Your task to perform on an android device: turn on the 24-hour format for clock Image 0: 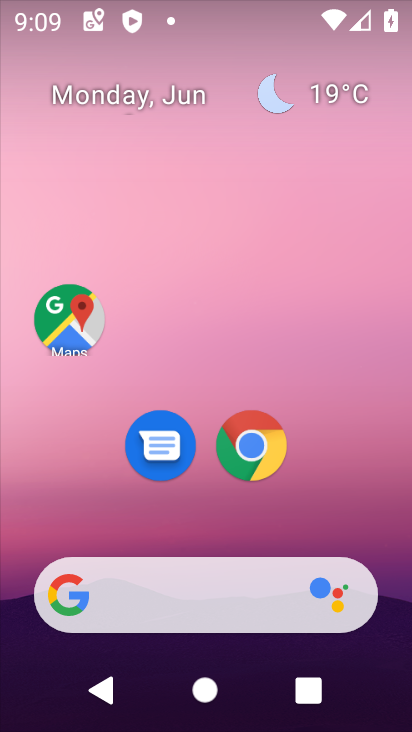
Step 0: press home button
Your task to perform on an android device: turn on the 24-hour format for clock Image 1: 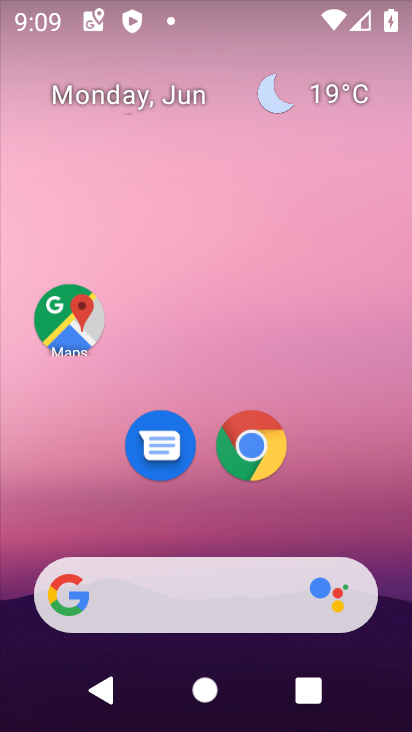
Step 1: drag from (211, 526) to (217, 74)
Your task to perform on an android device: turn on the 24-hour format for clock Image 2: 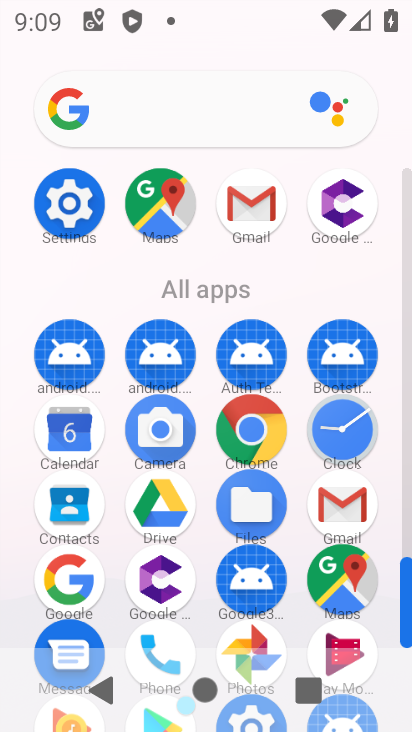
Step 2: click (339, 420)
Your task to perform on an android device: turn on the 24-hour format for clock Image 3: 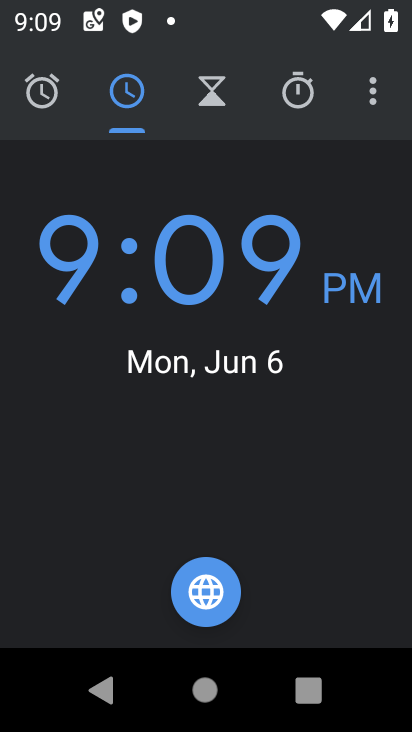
Step 3: click (375, 93)
Your task to perform on an android device: turn on the 24-hour format for clock Image 4: 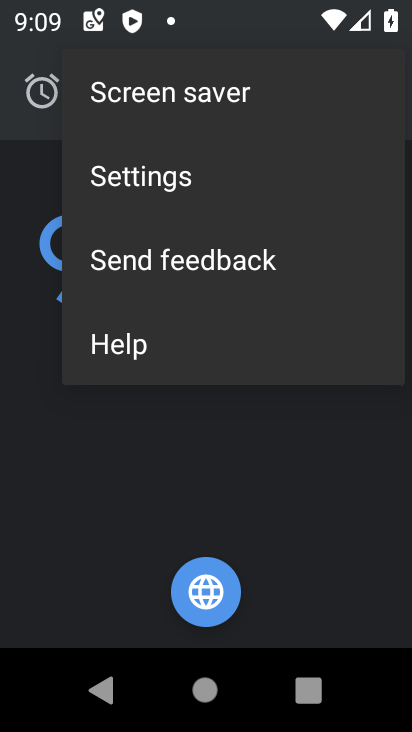
Step 4: click (205, 181)
Your task to perform on an android device: turn on the 24-hour format for clock Image 5: 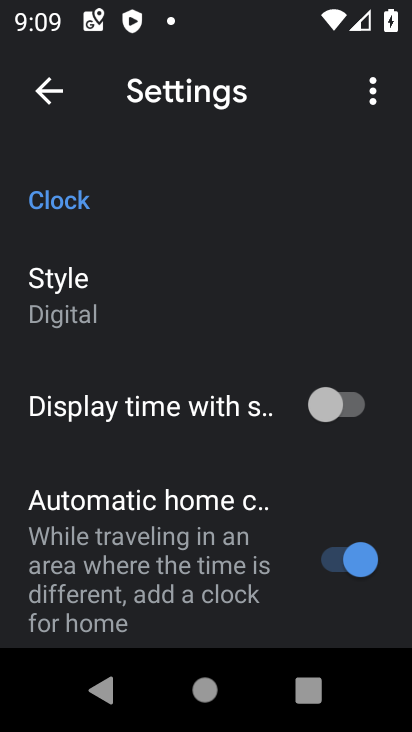
Step 5: drag from (225, 614) to (241, 87)
Your task to perform on an android device: turn on the 24-hour format for clock Image 6: 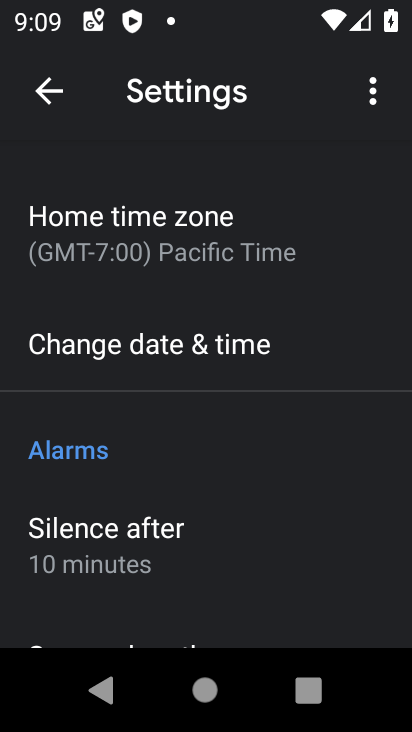
Step 6: click (290, 348)
Your task to perform on an android device: turn on the 24-hour format for clock Image 7: 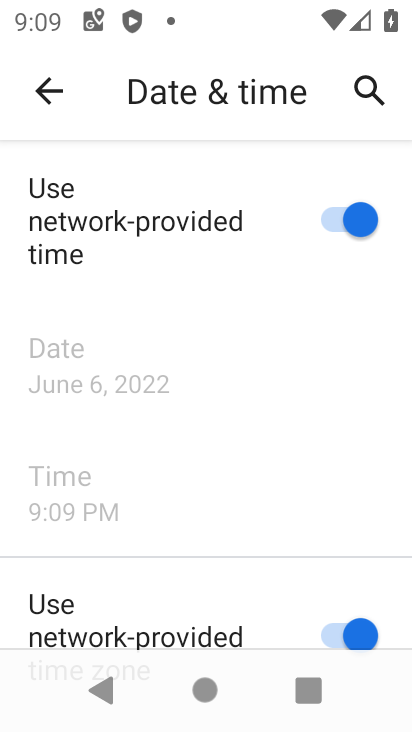
Step 7: drag from (252, 573) to (270, 140)
Your task to perform on an android device: turn on the 24-hour format for clock Image 8: 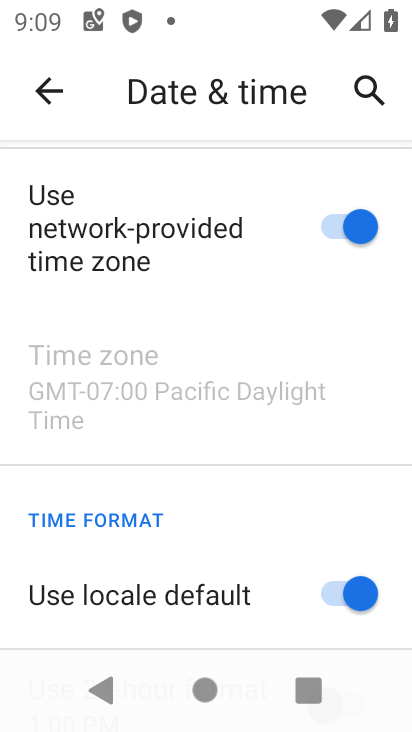
Step 8: drag from (221, 558) to (217, 140)
Your task to perform on an android device: turn on the 24-hour format for clock Image 9: 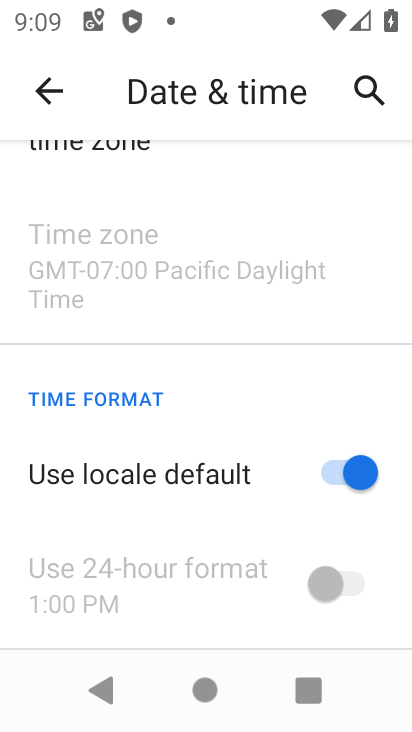
Step 9: click (332, 472)
Your task to perform on an android device: turn on the 24-hour format for clock Image 10: 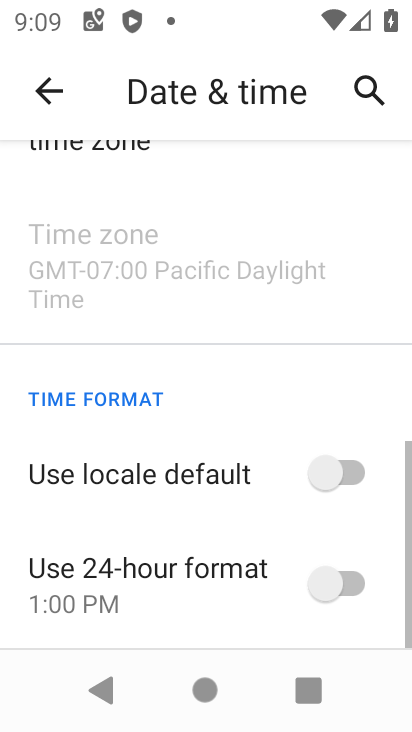
Step 10: click (350, 582)
Your task to perform on an android device: turn on the 24-hour format for clock Image 11: 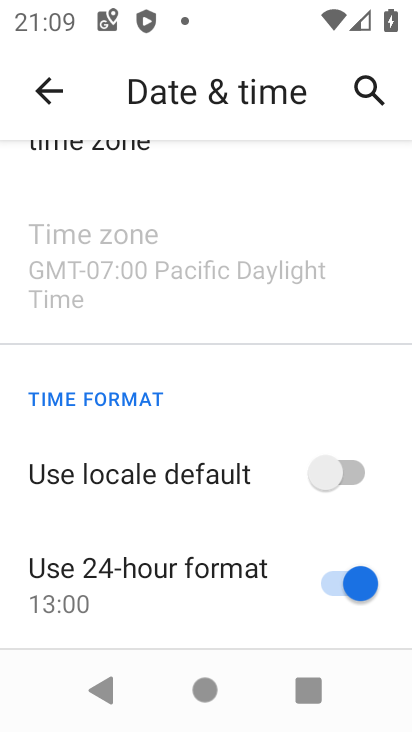
Step 11: task complete